Your task to perform on an android device: change the upload size in google photos Image 0: 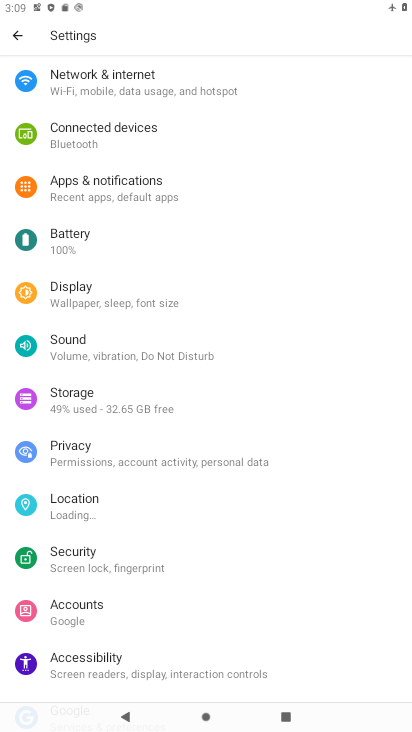
Step 0: press home button
Your task to perform on an android device: change the upload size in google photos Image 1: 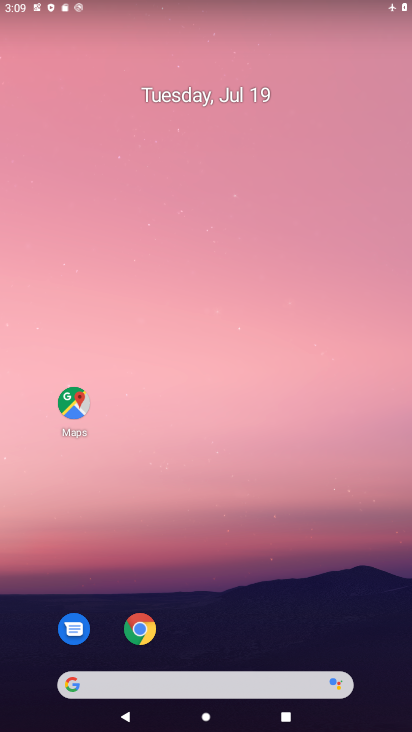
Step 1: drag from (190, 685) to (165, 178)
Your task to perform on an android device: change the upload size in google photos Image 2: 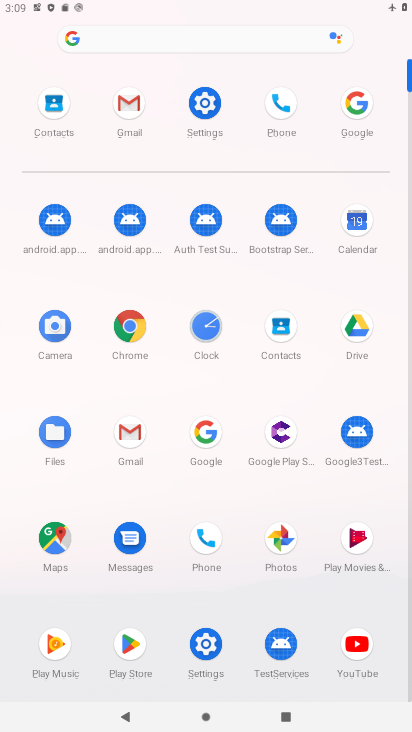
Step 2: click (288, 554)
Your task to perform on an android device: change the upload size in google photos Image 3: 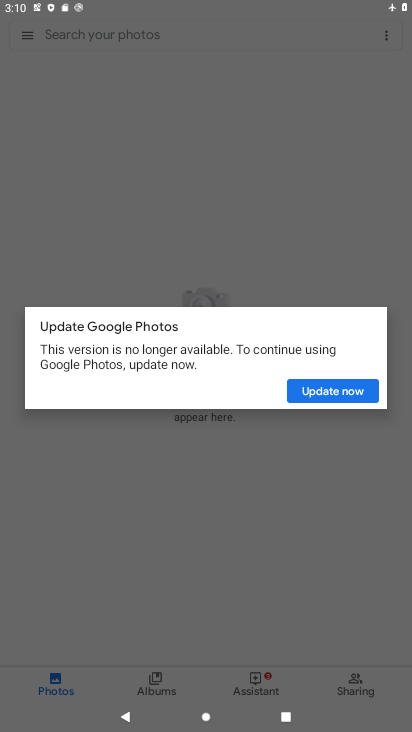
Step 3: click (362, 395)
Your task to perform on an android device: change the upload size in google photos Image 4: 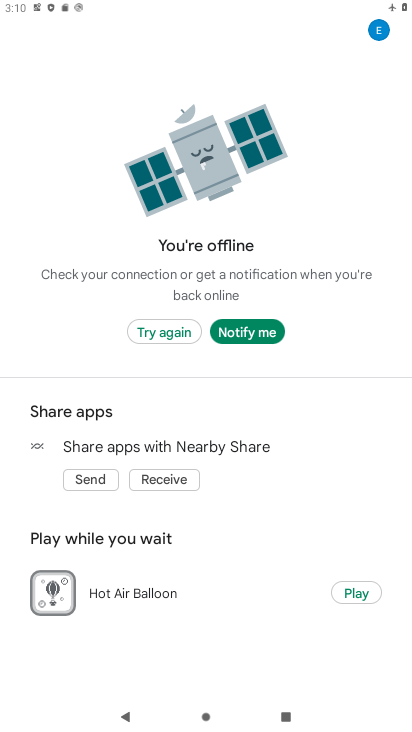
Step 4: press home button
Your task to perform on an android device: change the upload size in google photos Image 5: 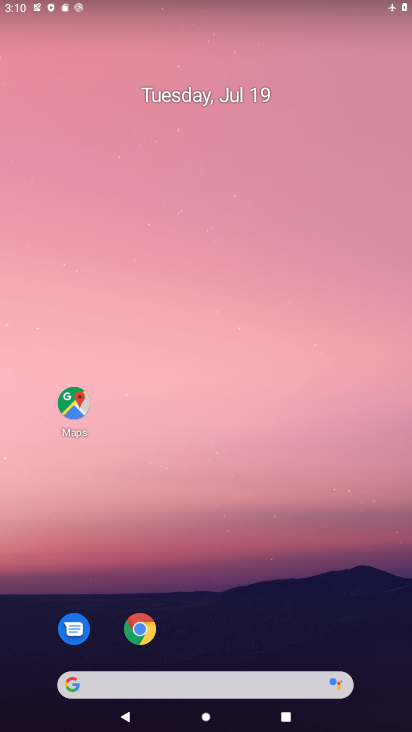
Step 5: drag from (194, 684) to (159, 176)
Your task to perform on an android device: change the upload size in google photos Image 6: 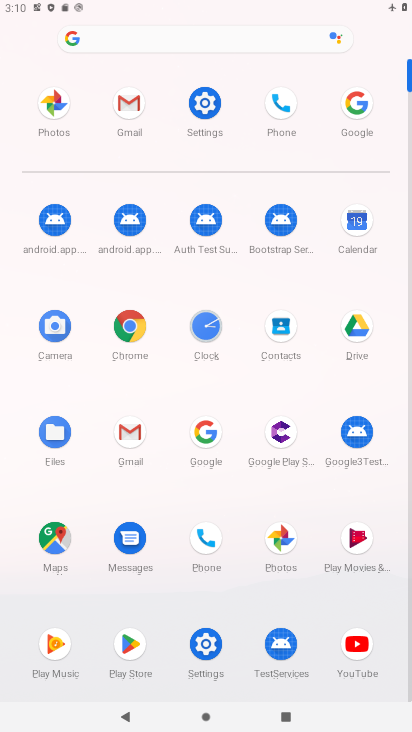
Step 6: click (277, 548)
Your task to perform on an android device: change the upload size in google photos Image 7: 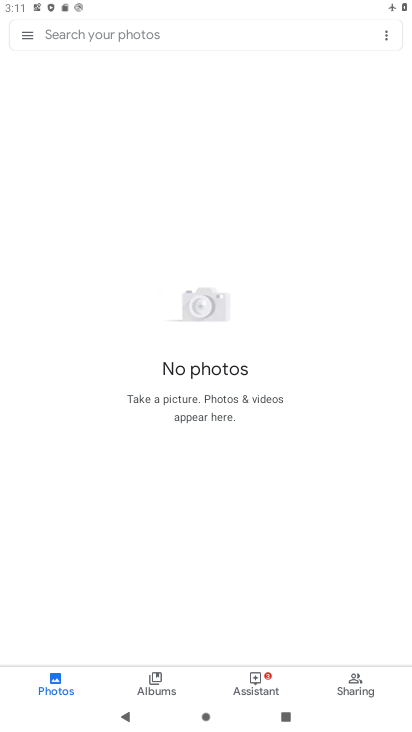
Step 7: click (24, 38)
Your task to perform on an android device: change the upload size in google photos Image 8: 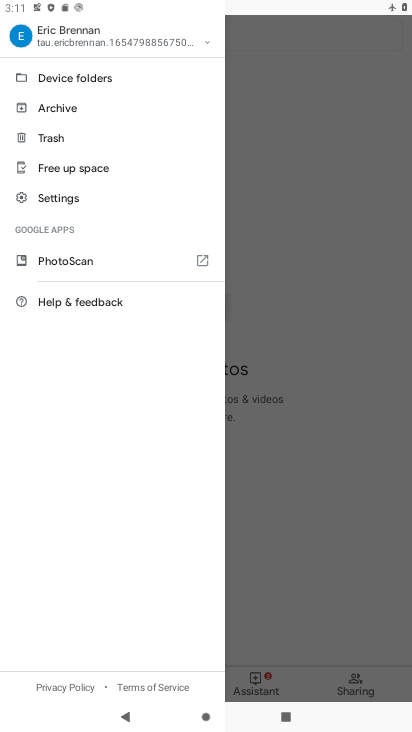
Step 8: click (63, 204)
Your task to perform on an android device: change the upload size in google photos Image 9: 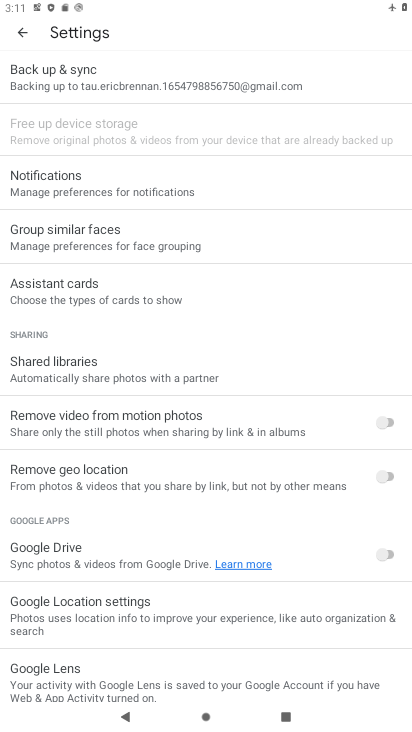
Step 9: click (96, 85)
Your task to perform on an android device: change the upload size in google photos Image 10: 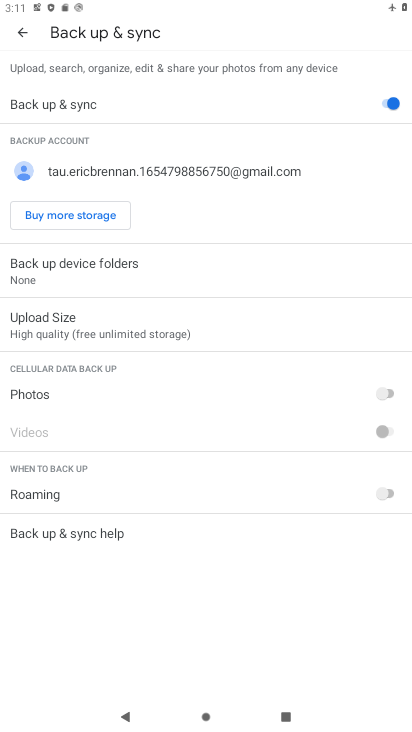
Step 10: click (136, 336)
Your task to perform on an android device: change the upload size in google photos Image 11: 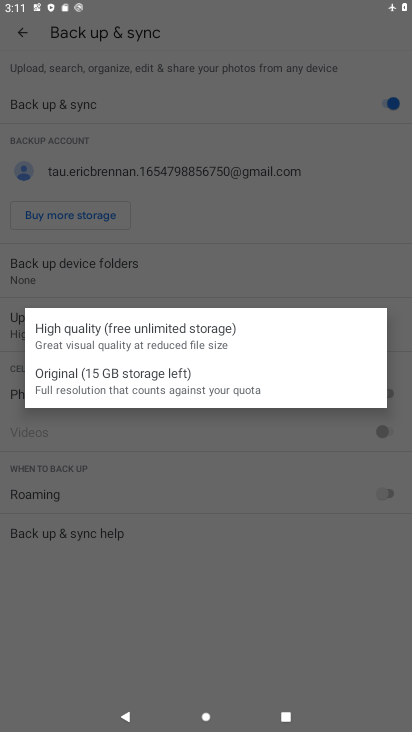
Step 11: click (117, 366)
Your task to perform on an android device: change the upload size in google photos Image 12: 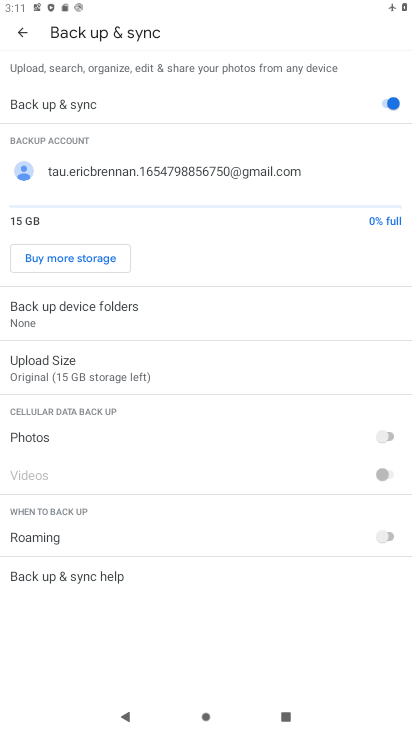
Step 12: task complete